Your task to perform on an android device: turn vacation reply on in the gmail app Image 0: 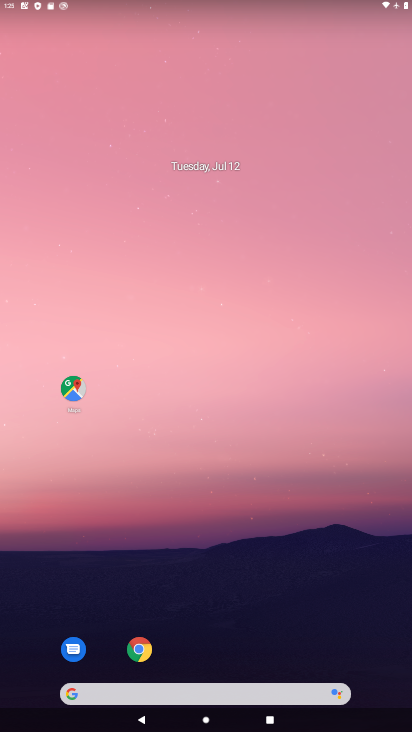
Step 0: drag from (268, 662) to (284, 13)
Your task to perform on an android device: turn vacation reply on in the gmail app Image 1: 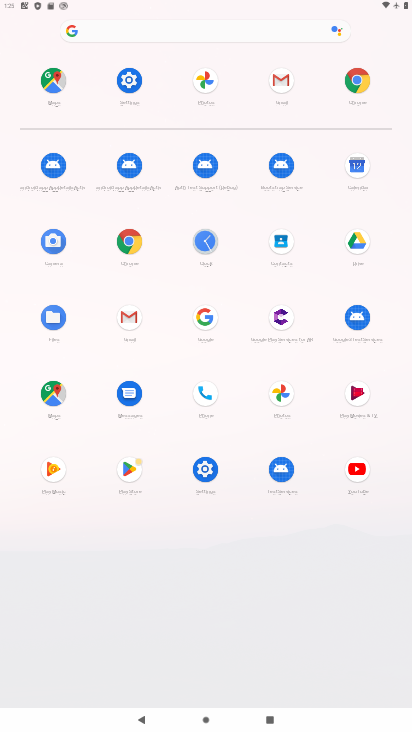
Step 1: click (280, 101)
Your task to perform on an android device: turn vacation reply on in the gmail app Image 2: 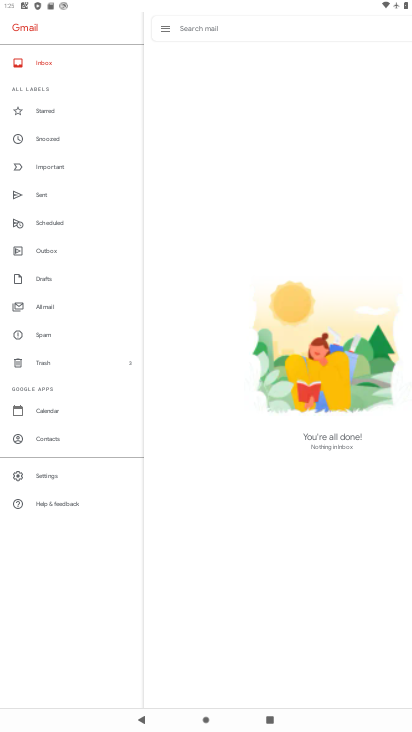
Step 2: click (79, 480)
Your task to perform on an android device: turn vacation reply on in the gmail app Image 3: 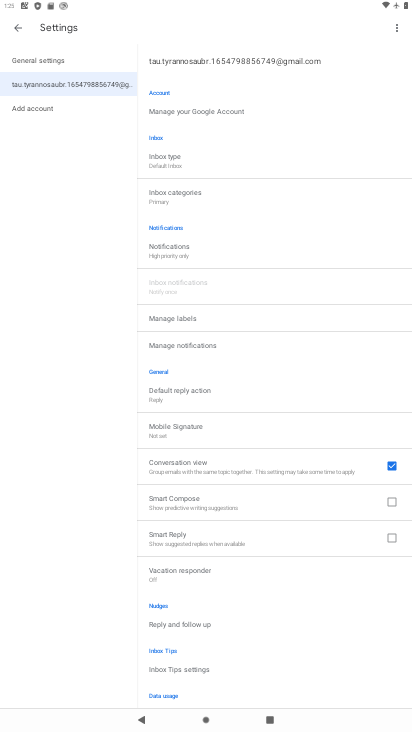
Step 3: click (224, 572)
Your task to perform on an android device: turn vacation reply on in the gmail app Image 4: 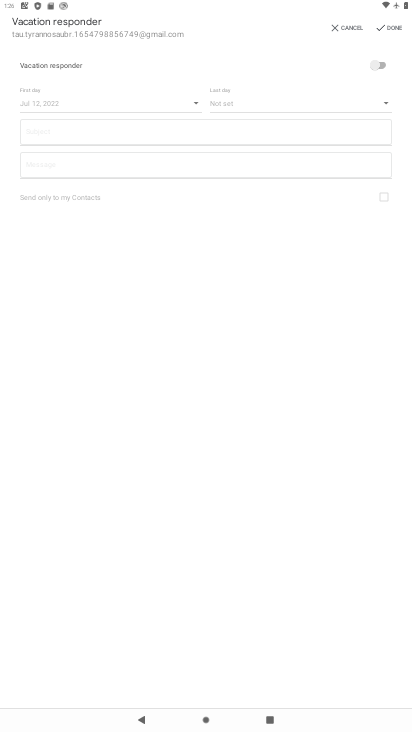
Step 4: task complete